Your task to perform on an android device: Open location settings Image 0: 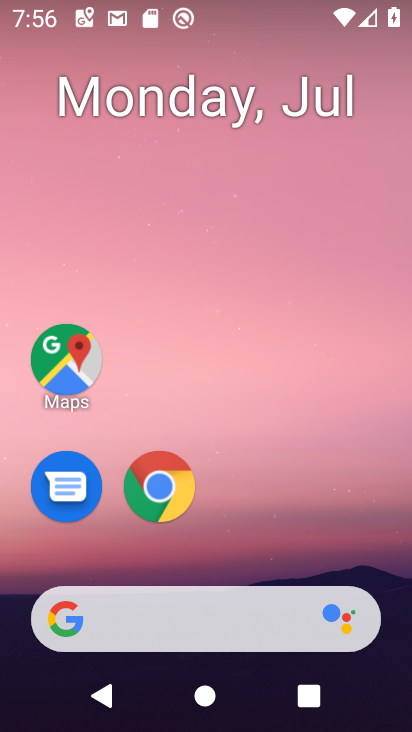
Step 0: drag from (379, 558) to (372, 164)
Your task to perform on an android device: Open location settings Image 1: 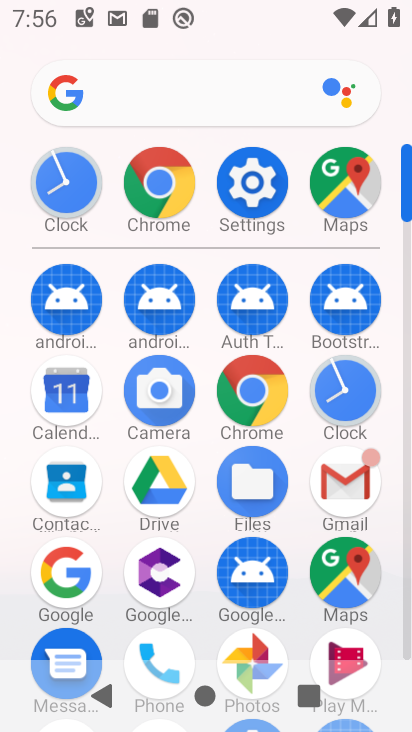
Step 1: click (272, 201)
Your task to perform on an android device: Open location settings Image 2: 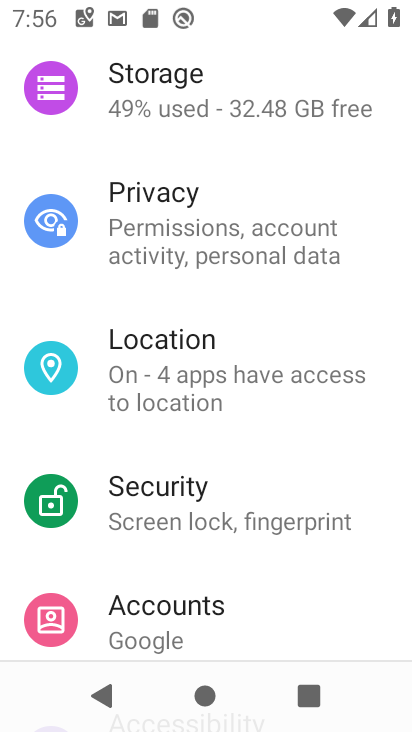
Step 2: click (268, 365)
Your task to perform on an android device: Open location settings Image 3: 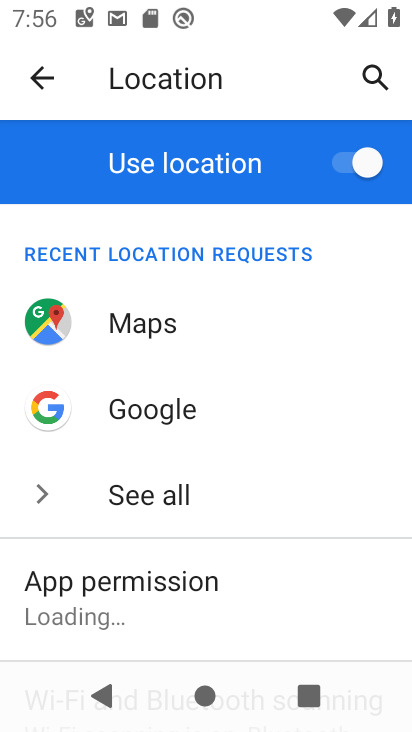
Step 3: task complete